Your task to perform on an android device: Go to wifi settings Image 0: 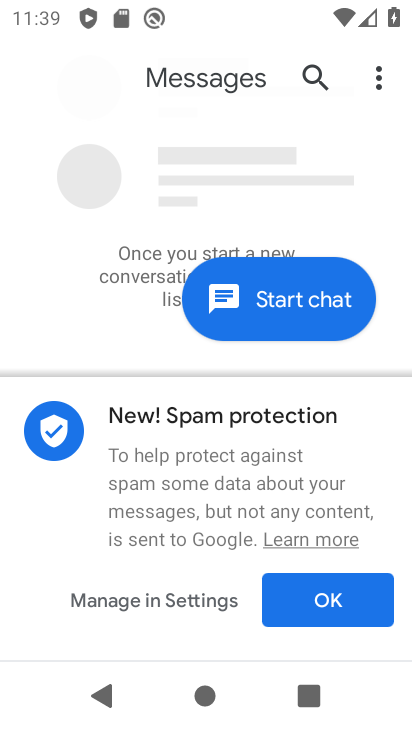
Step 0: press home button
Your task to perform on an android device: Go to wifi settings Image 1: 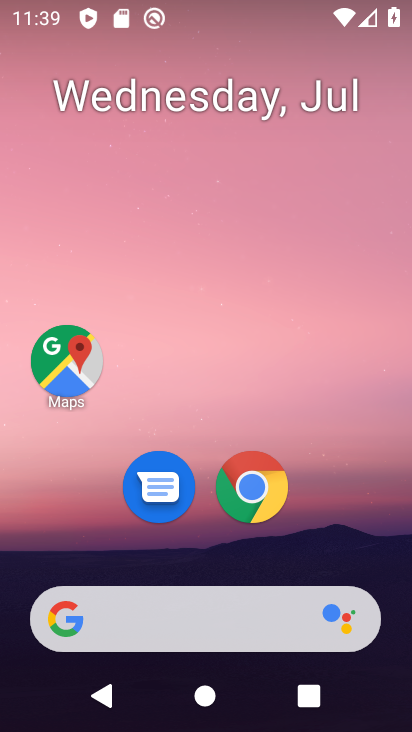
Step 1: drag from (251, 573) to (282, 137)
Your task to perform on an android device: Go to wifi settings Image 2: 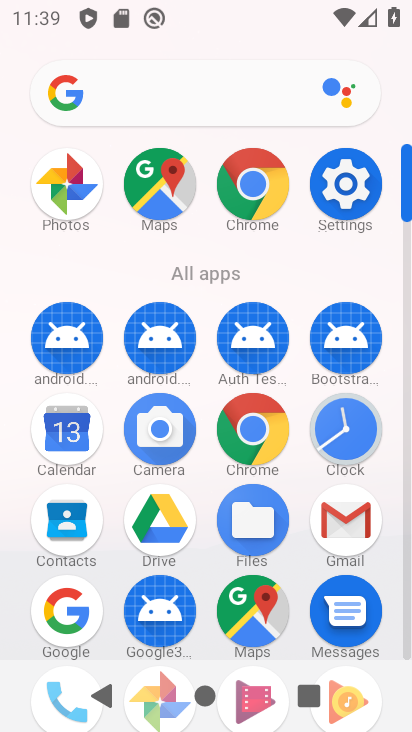
Step 2: click (340, 192)
Your task to perform on an android device: Go to wifi settings Image 3: 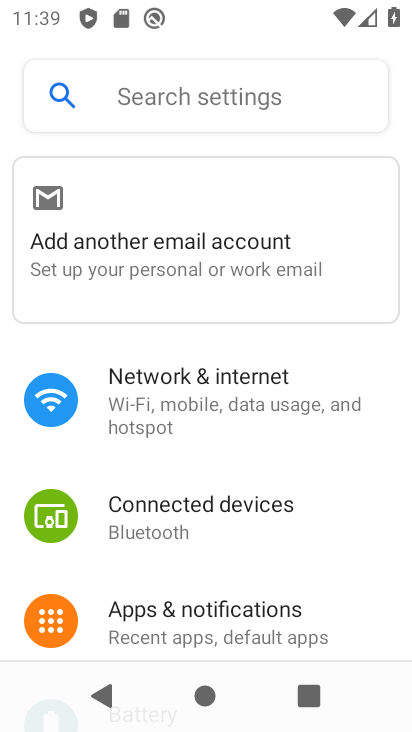
Step 3: click (248, 398)
Your task to perform on an android device: Go to wifi settings Image 4: 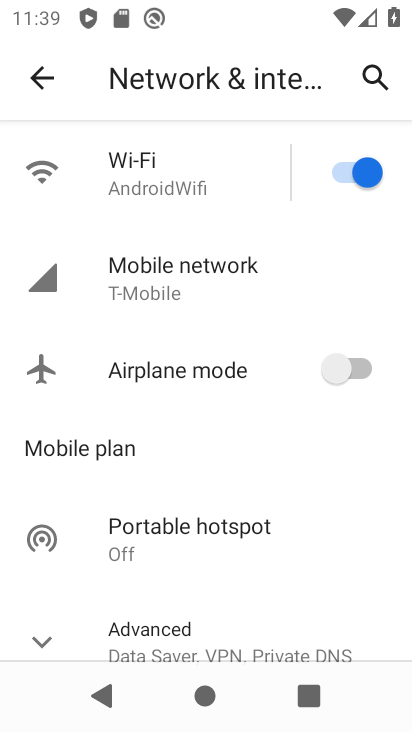
Step 4: click (179, 175)
Your task to perform on an android device: Go to wifi settings Image 5: 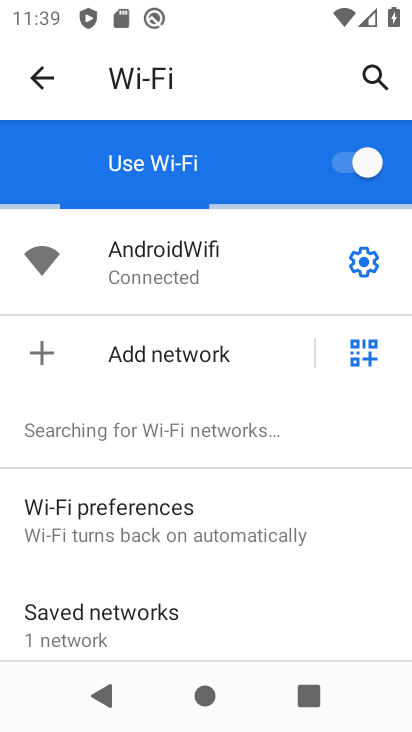
Step 5: task complete